Your task to perform on an android device: Open calendar and show me the second week of next month Image 0: 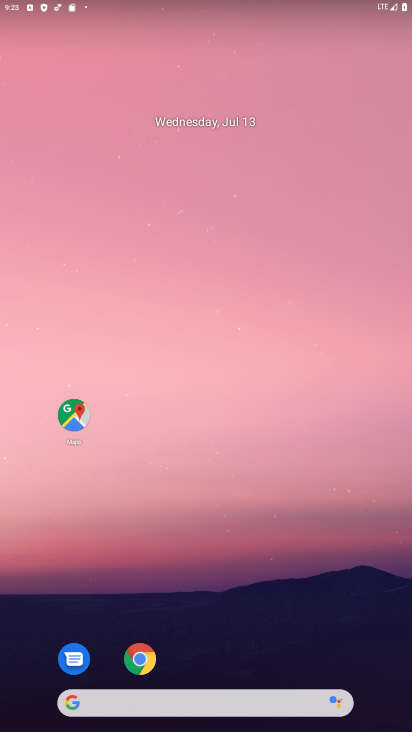
Step 0: drag from (387, 654) to (402, 207)
Your task to perform on an android device: Open calendar and show me the second week of next month Image 1: 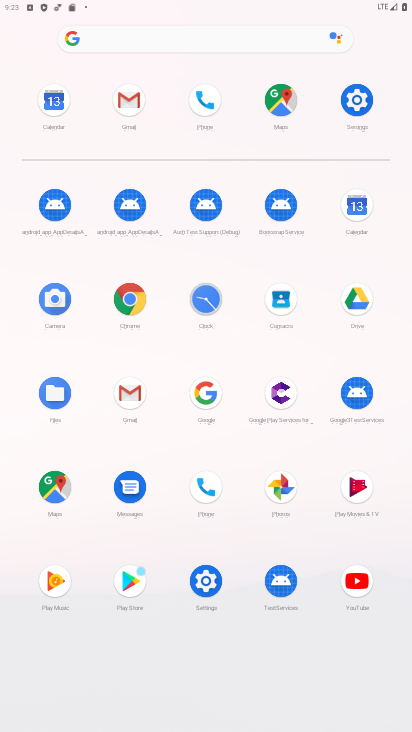
Step 1: click (357, 208)
Your task to perform on an android device: Open calendar and show me the second week of next month Image 2: 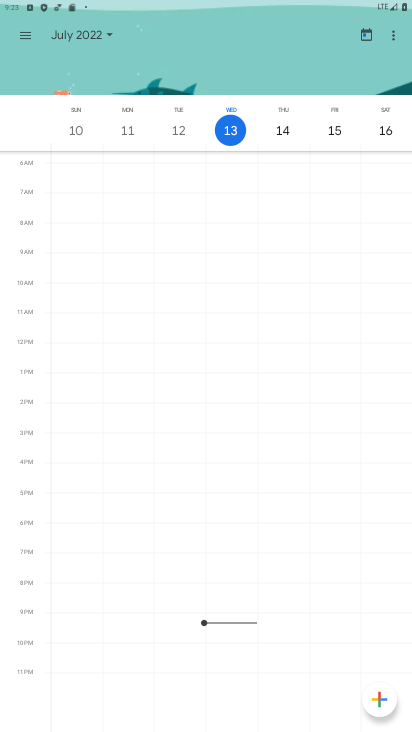
Step 2: click (23, 37)
Your task to perform on an android device: Open calendar and show me the second week of next month Image 3: 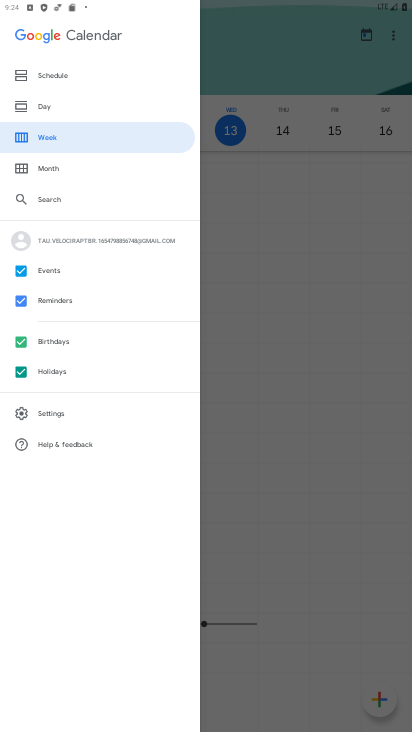
Step 3: click (65, 128)
Your task to perform on an android device: Open calendar and show me the second week of next month Image 4: 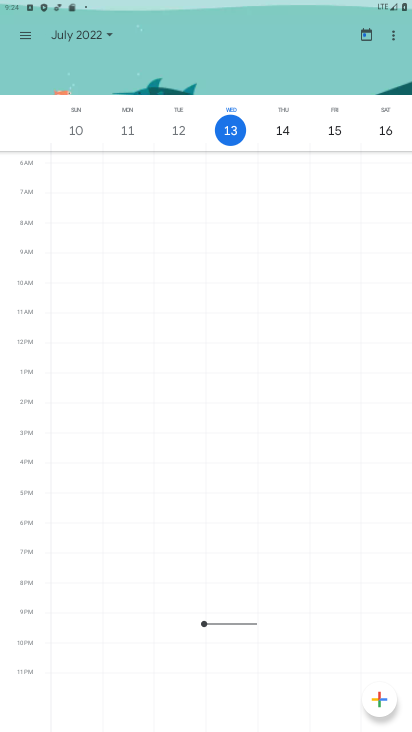
Step 4: click (109, 34)
Your task to perform on an android device: Open calendar and show me the second week of next month Image 5: 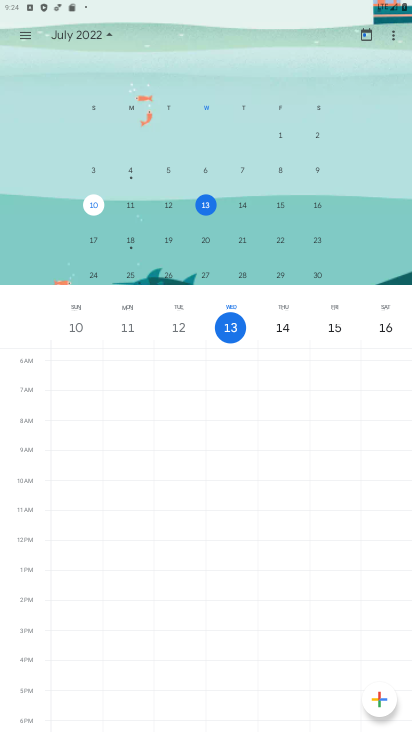
Step 5: drag from (327, 239) to (13, 192)
Your task to perform on an android device: Open calendar and show me the second week of next month Image 6: 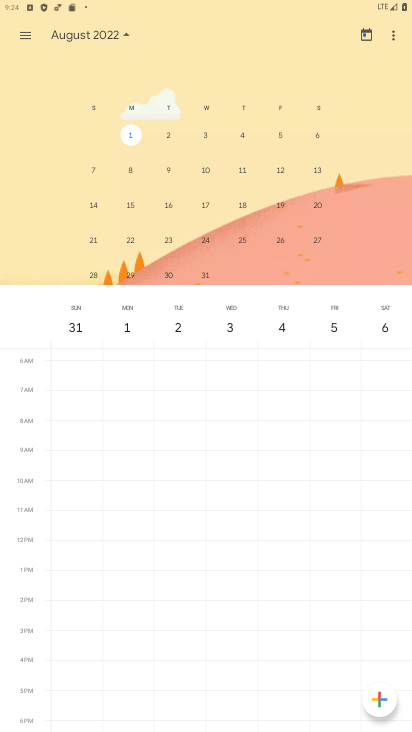
Step 6: click (93, 205)
Your task to perform on an android device: Open calendar and show me the second week of next month Image 7: 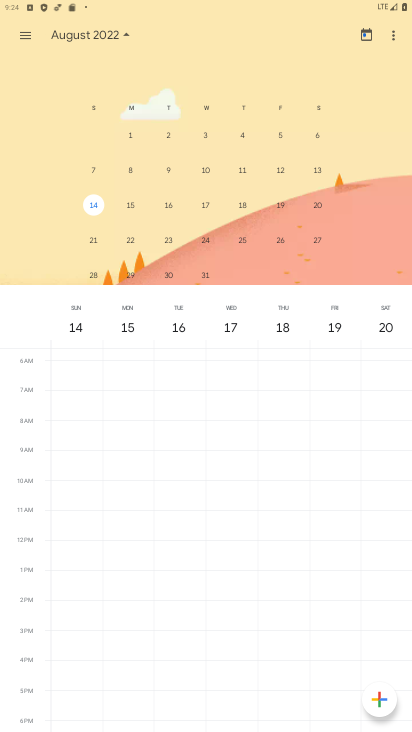
Step 7: task complete